Your task to perform on an android device: open device folders in google photos Image 0: 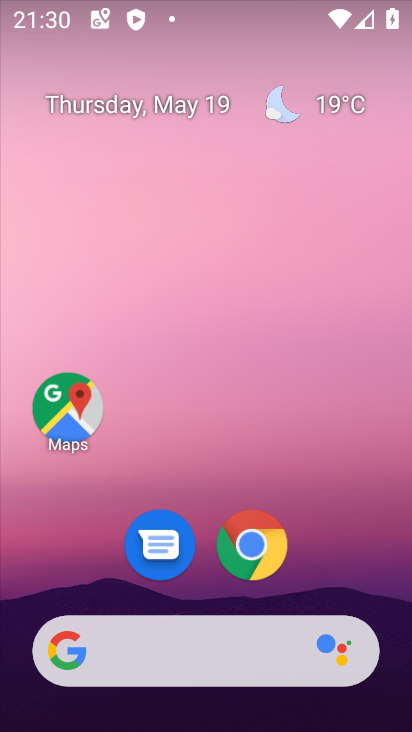
Step 0: drag from (365, 543) to (356, 90)
Your task to perform on an android device: open device folders in google photos Image 1: 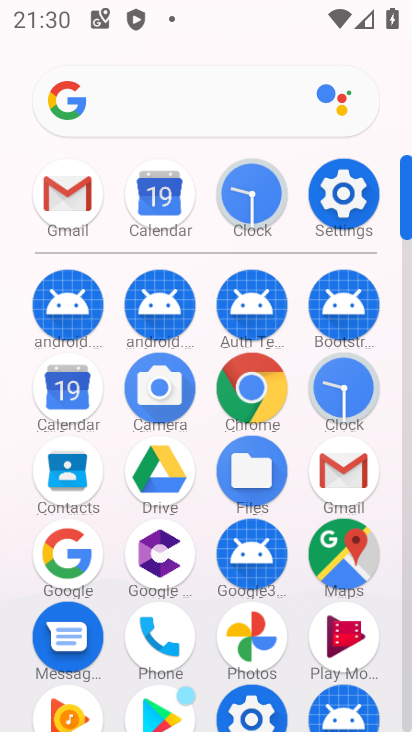
Step 1: click (268, 620)
Your task to perform on an android device: open device folders in google photos Image 2: 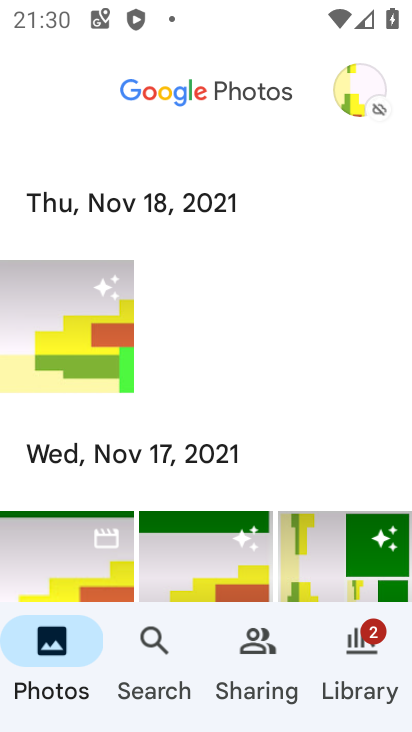
Step 2: click (339, 81)
Your task to perform on an android device: open device folders in google photos Image 3: 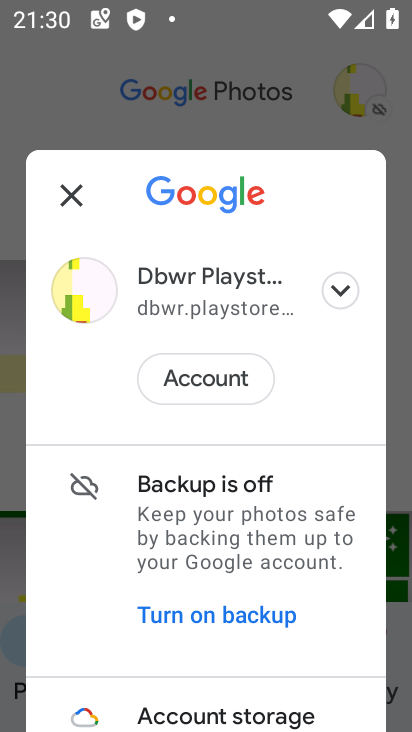
Step 3: task complete